Your task to perform on an android device: What's the weather? Image 0: 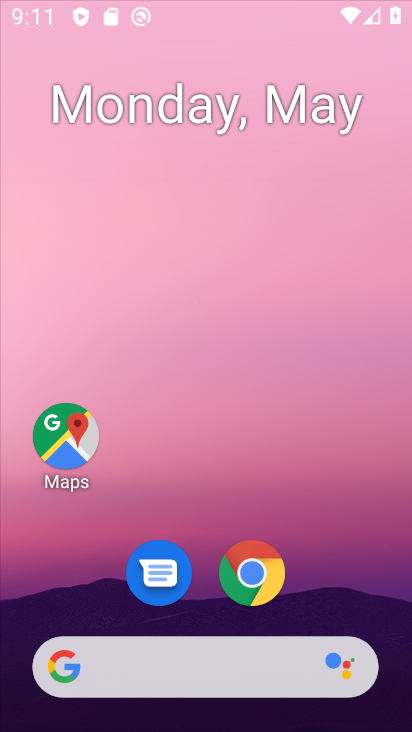
Step 0: click (293, 243)
Your task to perform on an android device: What's the weather? Image 1: 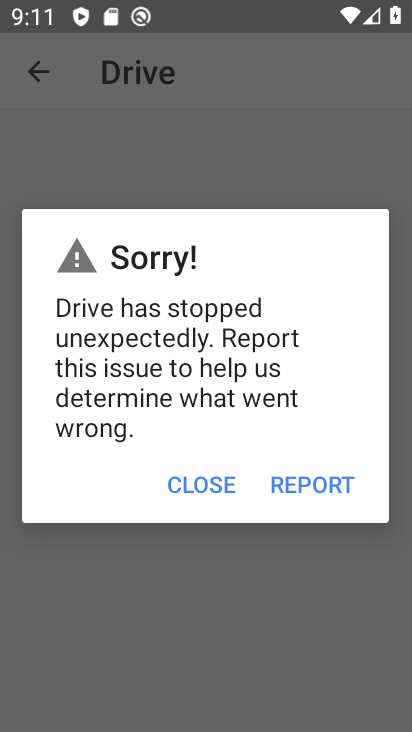
Step 1: press back button
Your task to perform on an android device: What's the weather? Image 2: 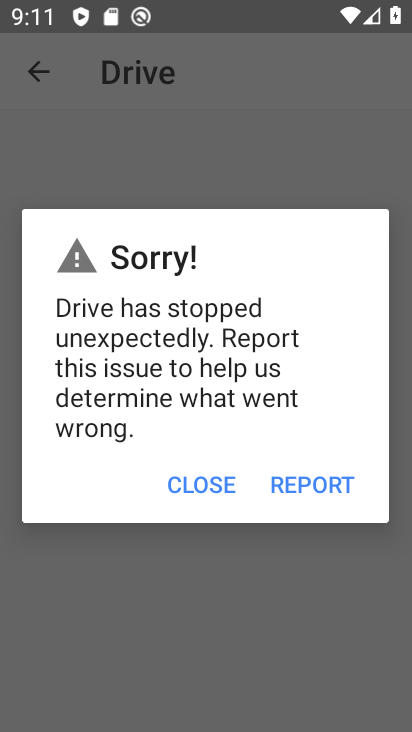
Step 2: press back button
Your task to perform on an android device: What's the weather? Image 3: 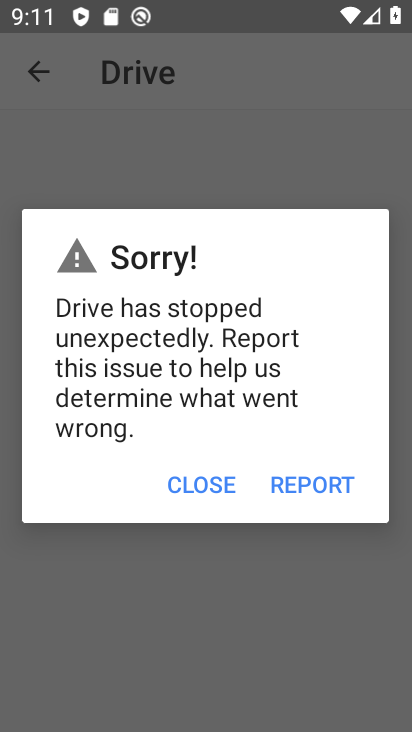
Step 3: press home button
Your task to perform on an android device: What's the weather? Image 4: 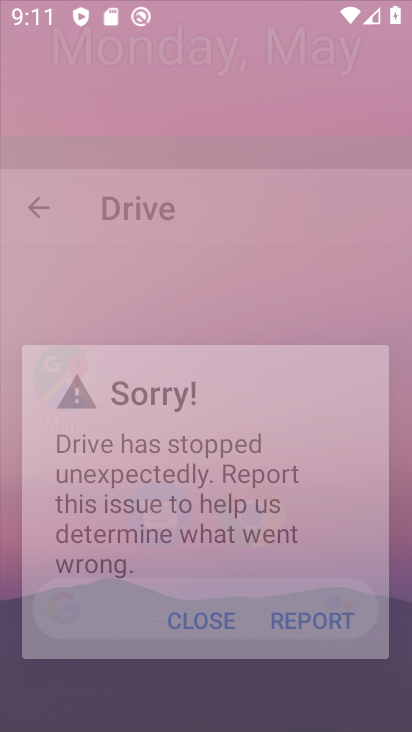
Step 4: press home button
Your task to perform on an android device: What's the weather? Image 5: 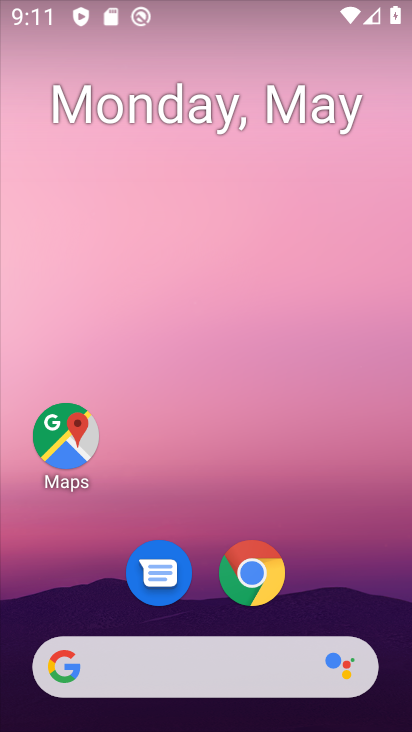
Step 5: drag from (20, 265) to (411, 374)
Your task to perform on an android device: What's the weather? Image 6: 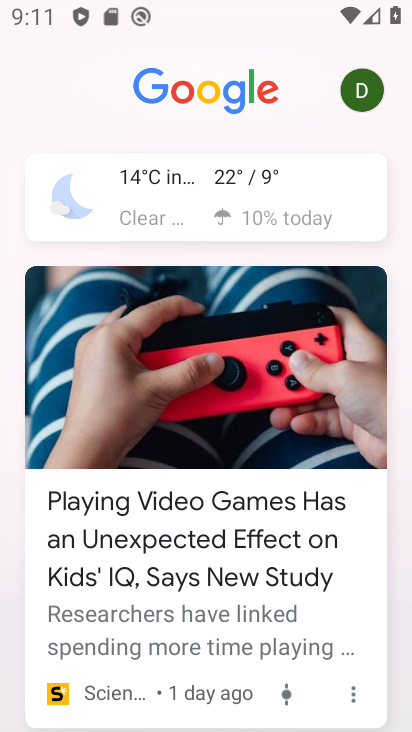
Step 6: click (172, 212)
Your task to perform on an android device: What's the weather? Image 7: 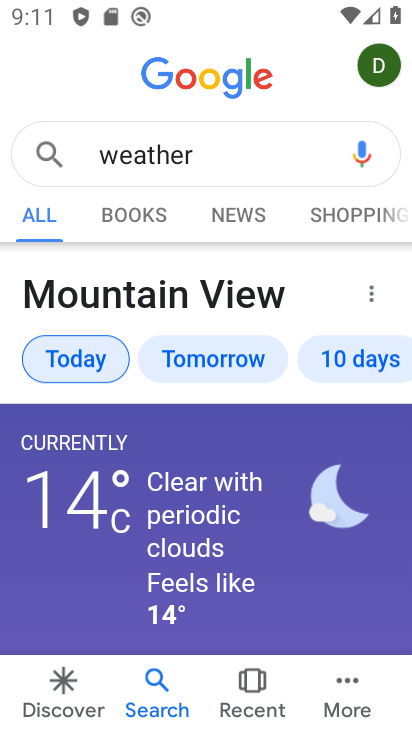
Step 7: drag from (226, 577) to (266, 237)
Your task to perform on an android device: What's the weather? Image 8: 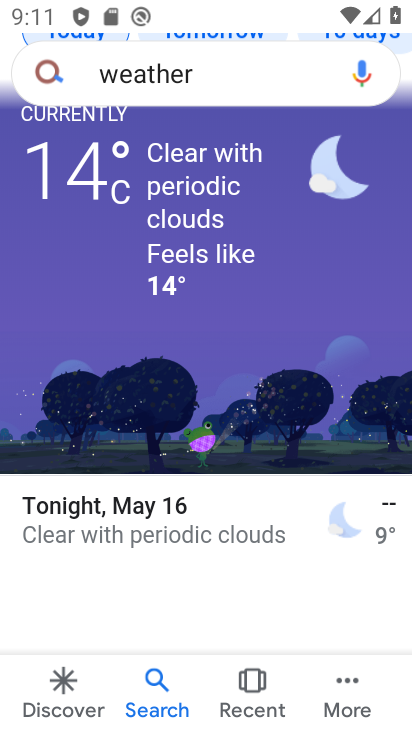
Step 8: click (274, 253)
Your task to perform on an android device: What's the weather? Image 9: 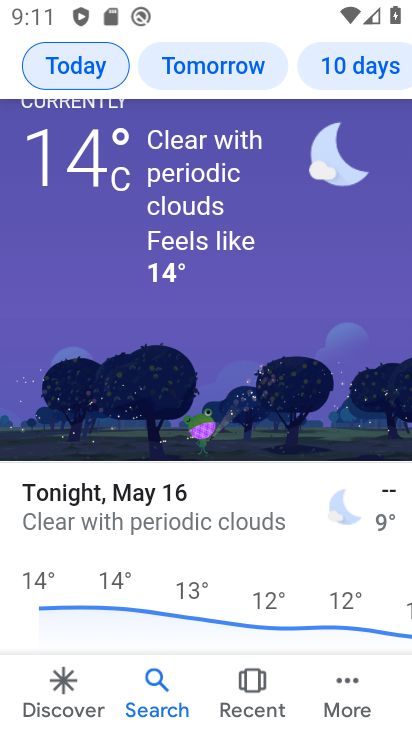
Step 9: task complete